Your task to perform on an android device: toggle javascript in the chrome app Image 0: 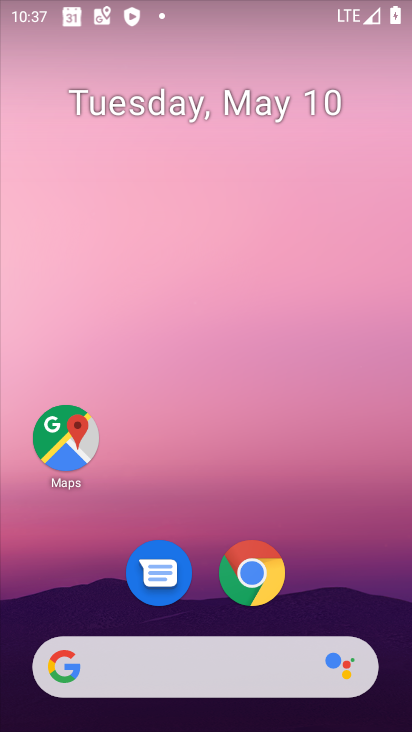
Step 0: click (247, 569)
Your task to perform on an android device: toggle javascript in the chrome app Image 1: 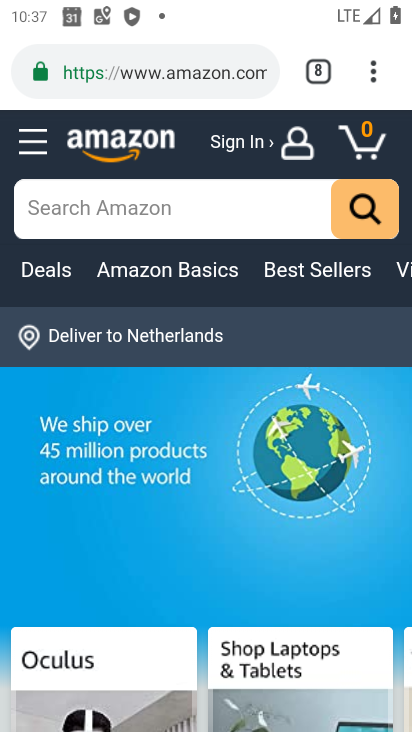
Step 1: click (373, 66)
Your task to perform on an android device: toggle javascript in the chrome app Image 2: 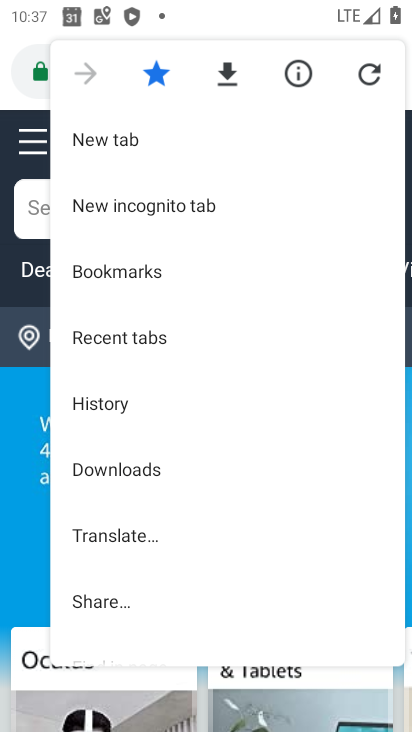
Step 2: drag from (207, 581) to (117, 323)
Your task to perform on an android device: toggle javascript in the chrome app Image 3: 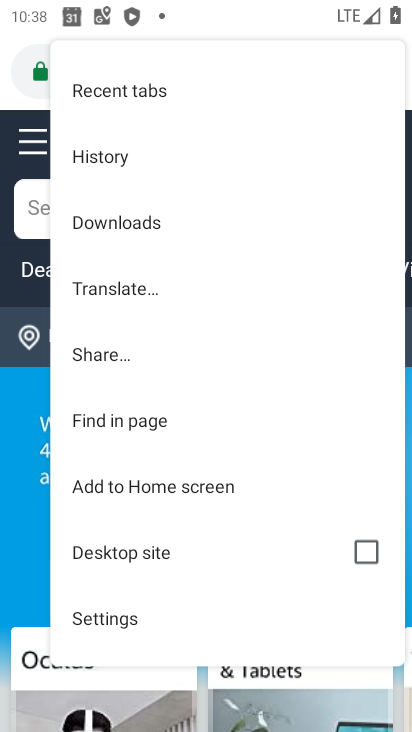
Step 3: click (104, 615)
Your task to perform on an android device: toggle javascript in the chrome app Image 4: 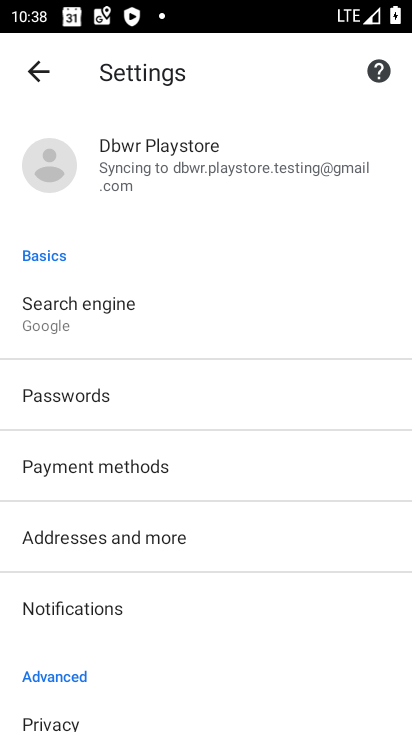
Step 4: drag from (169, 566) to (141, 232)
Your task to perform on an android device: toggle javascript in the chrome app Image 5: 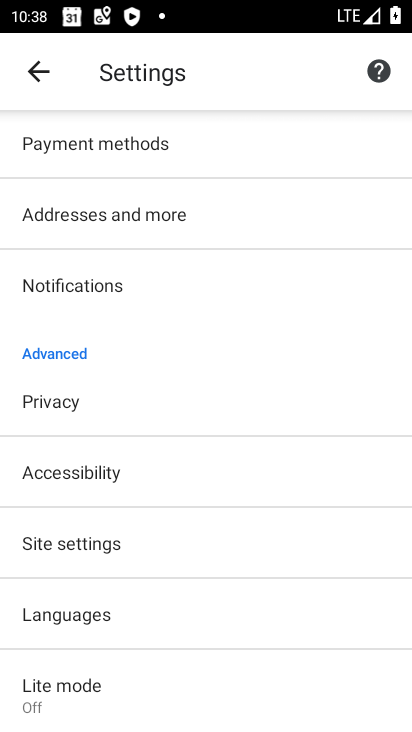
Step 5: drag from (154, 584) to (135, 333)
Your task to perform on an android device: toggle javascript in the chrome app Image 6: 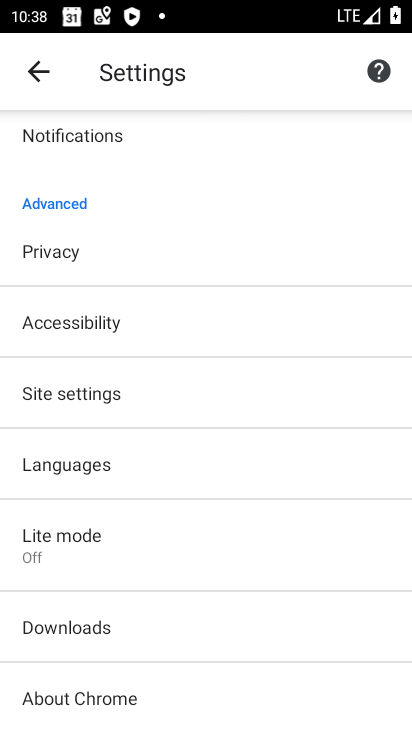
Step 6: click (97, 401)
Your task to perform on an android device: toggle javascript in the chrome app Image 7: 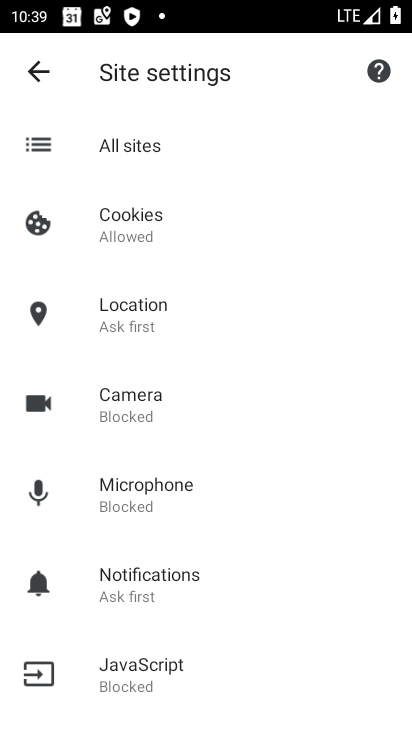
Step 7: click (164, 668)
Your task to perform on an android device: toggle javascript in the chrome app Image 8: 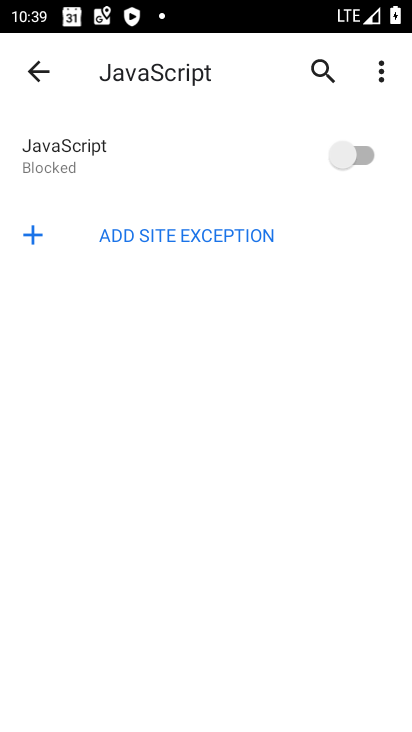
Step 8: click (352, 150)
Your task to perform on an android device: toggle javascript in the chrome app Image 9: 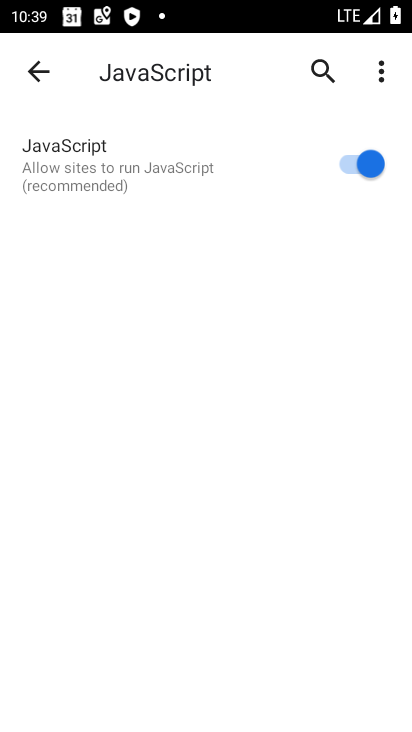
Step 9: task complete